Your task to perform on an android device: open device folders in google photos Image 0: 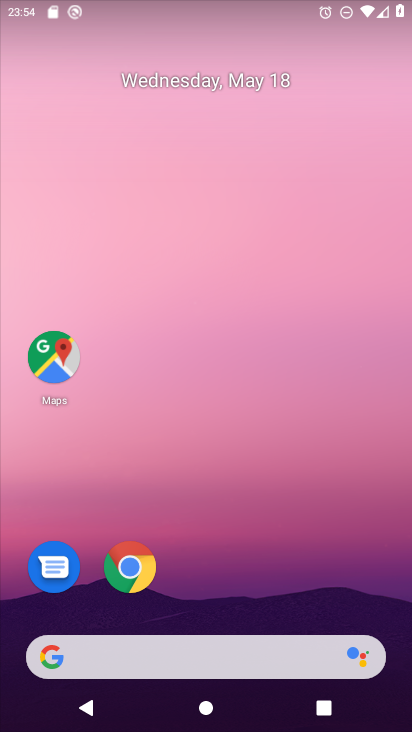
Step 0: drag from (237, 666) to (300, 127)
Your task to perform on an android device: open device folders in google photos Image 1: 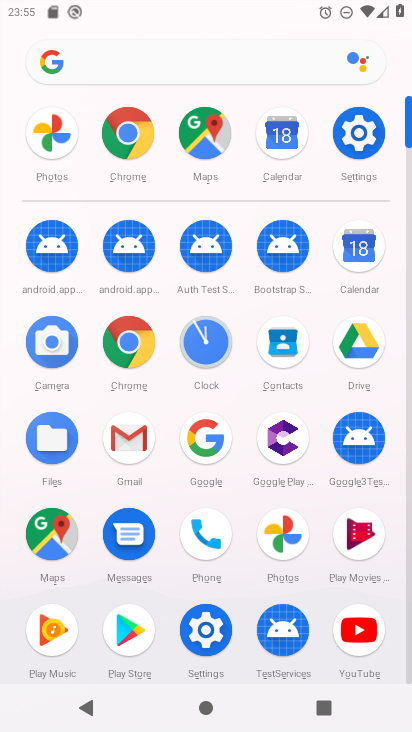
Step 1: click (280, 542)
Your task to perform on an android device: open device folders in google photos Image 2: 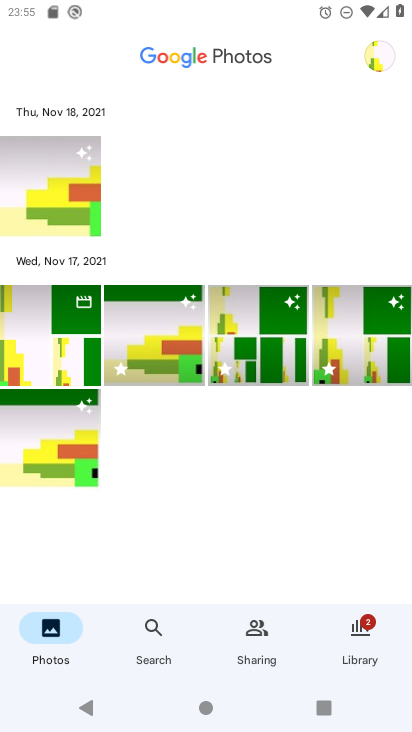
Step 2: click (154, 631)
Your task to perform on an android device: open device folders in google photos Image 3: 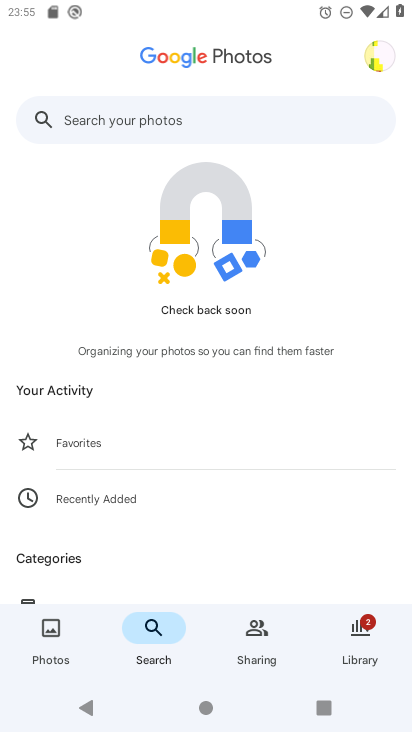
Step 3: click (129, 121)
Your task to perform on an android device: open device folders in google photos Image 4: 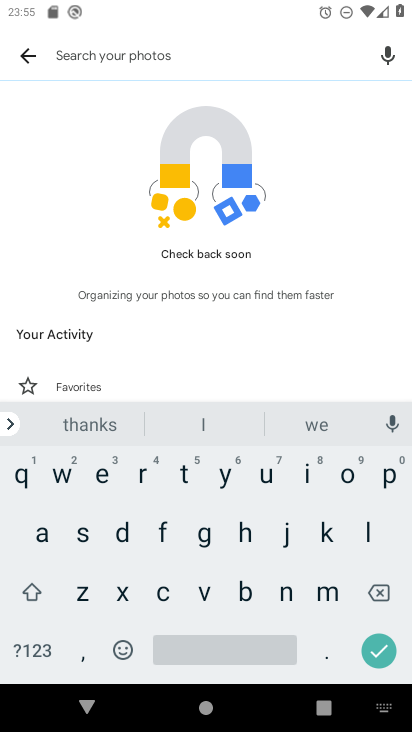
Step 4: click (117, 536)
Your task to perform on an android device: open device folders in google photos Image 5: 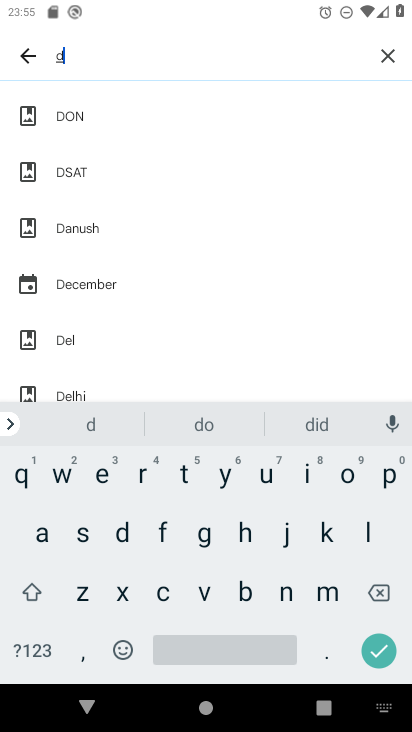
Step 5: click (96, 482)
Your task to perform on an android device: open device folders in google photos Image 6: 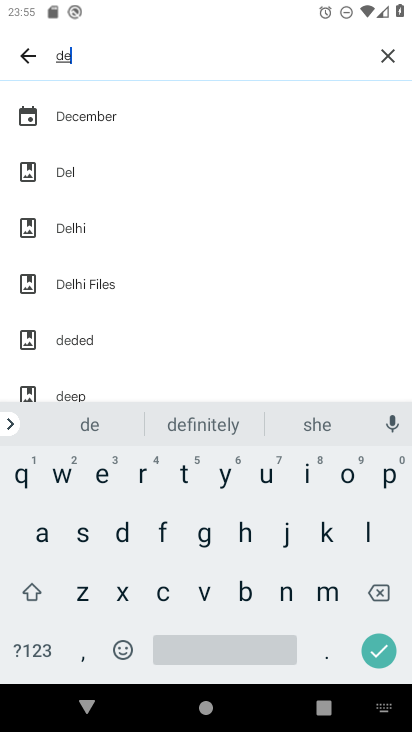
Step 6: click (200, 589)
Your task to perform on an android device: open device folders in google photos Image 7: 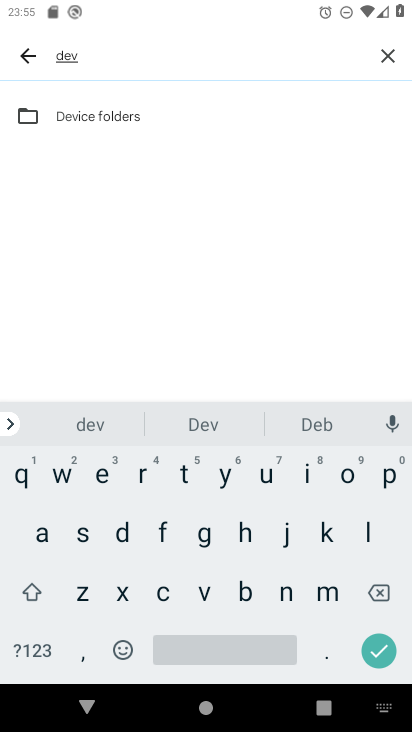
Step 7: click (79, 123)
Your task to perform on an android device: open device folders in google photos Image 8: 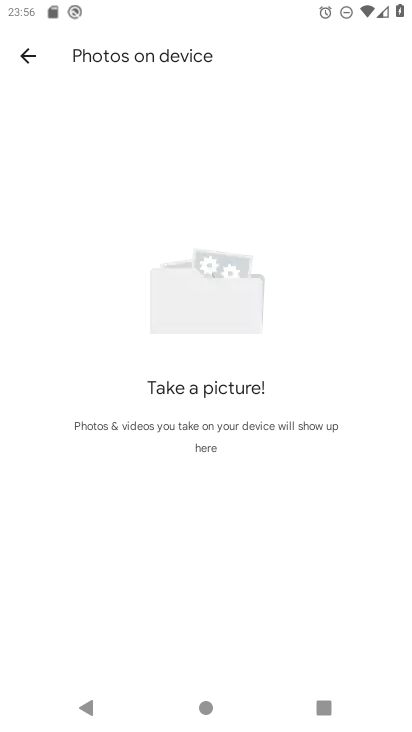
Step 8: task complete